Your task to perform on an android device: toggle wifi Image 0: 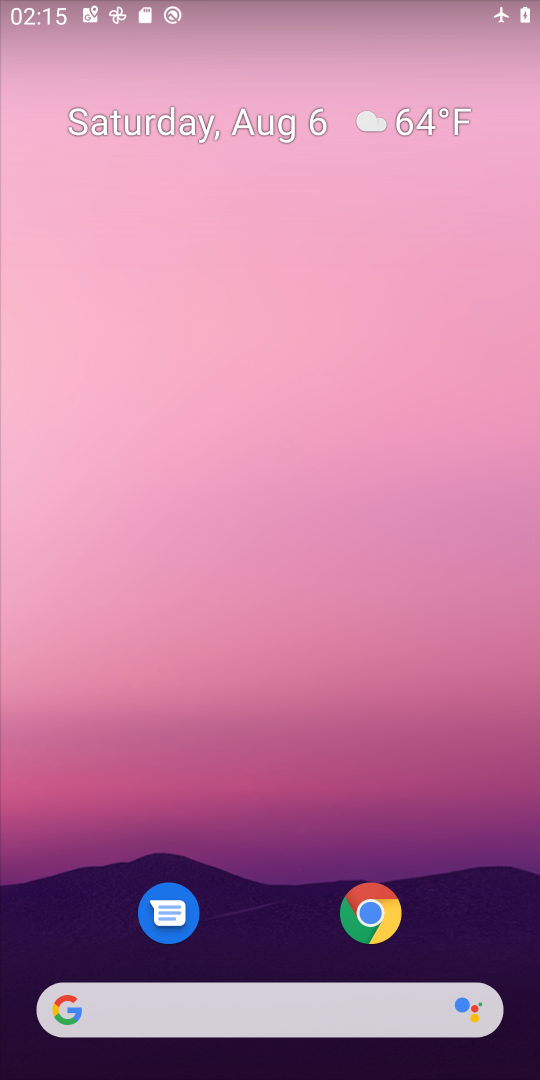
Step 0: drag from (476, 934) to (450, 224)
Your task to perform on an android device: toggle wifi Image 1: 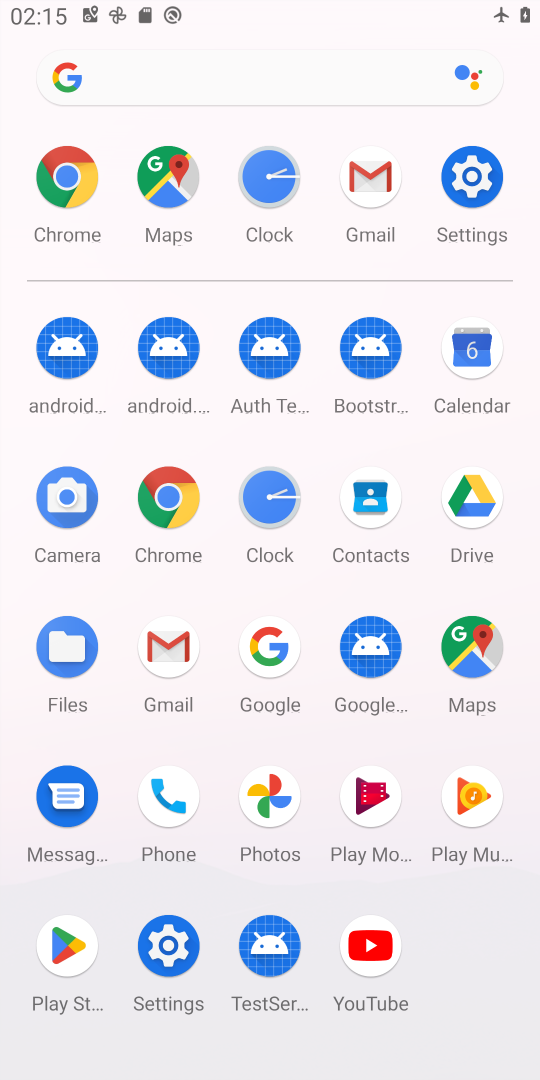
Step 1: click (472, 172)
Your task to perform on an android device: toggle wifi Image 2: 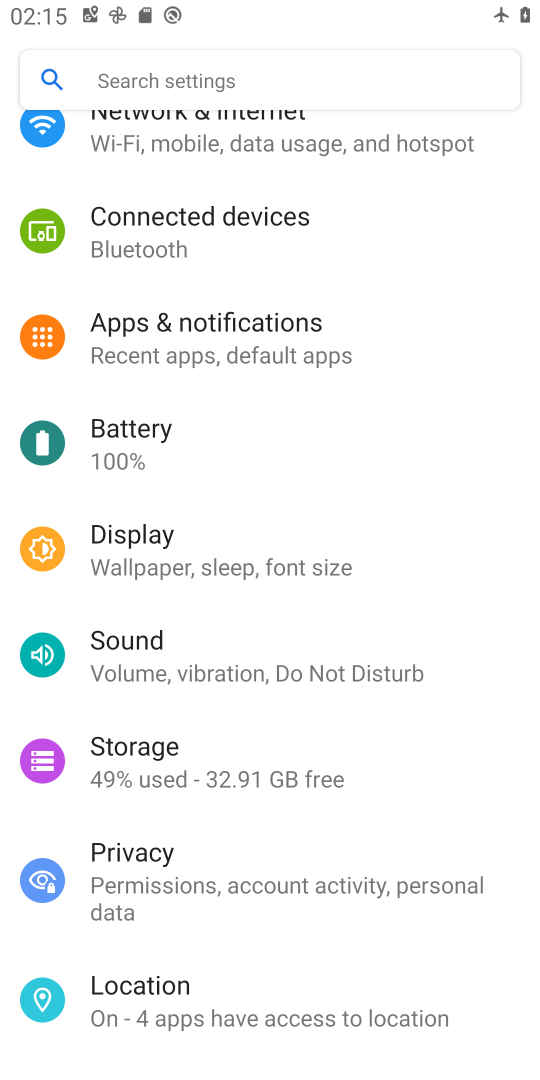
Step 2: drag from (460, 611) to (466, 383)
Your task to perform on an android device: toggle wifi Image 3: 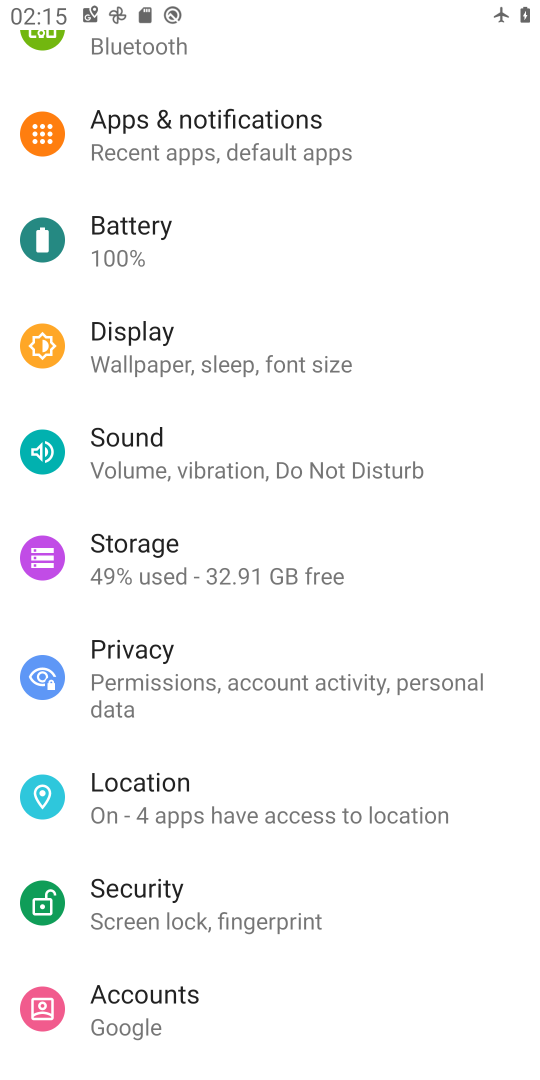
Step 3: drag from (456, 759) to (451, 418)
Your task to perform on an android device: toggle wifi Image 4: 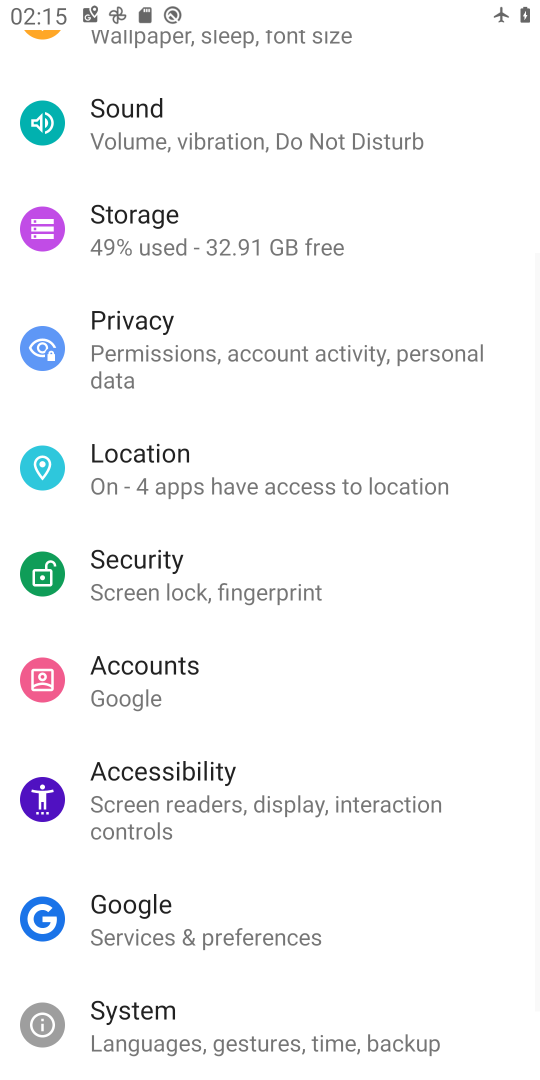
Step 4: drag from (470, 772) to (481, 481)
Your task to perform on an android device: toggle wifi Image 5: 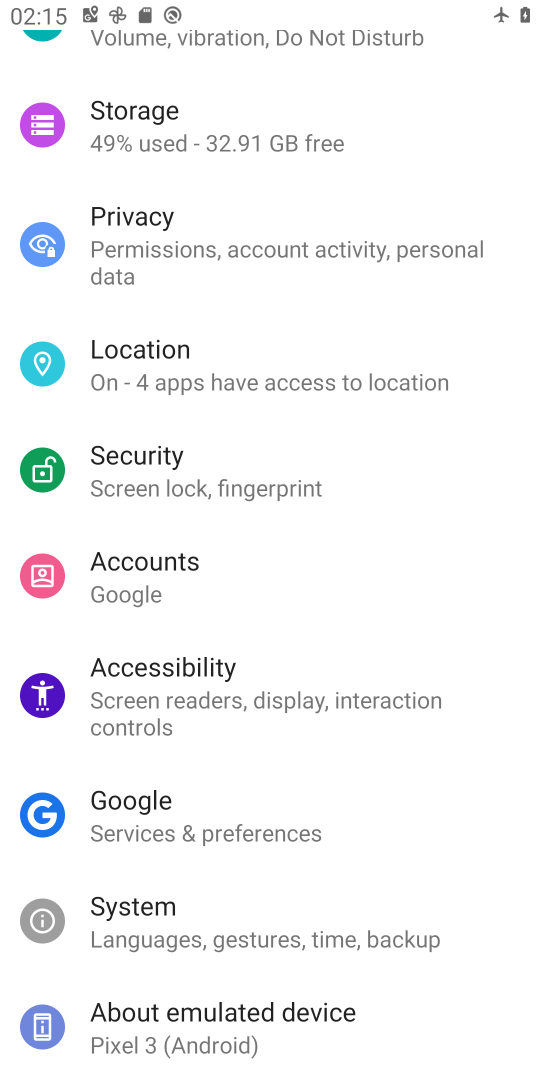
Step 5: drag from (474, 827) to (474, 513)
Your task to perform on an android device: toggle wifi Image 6: 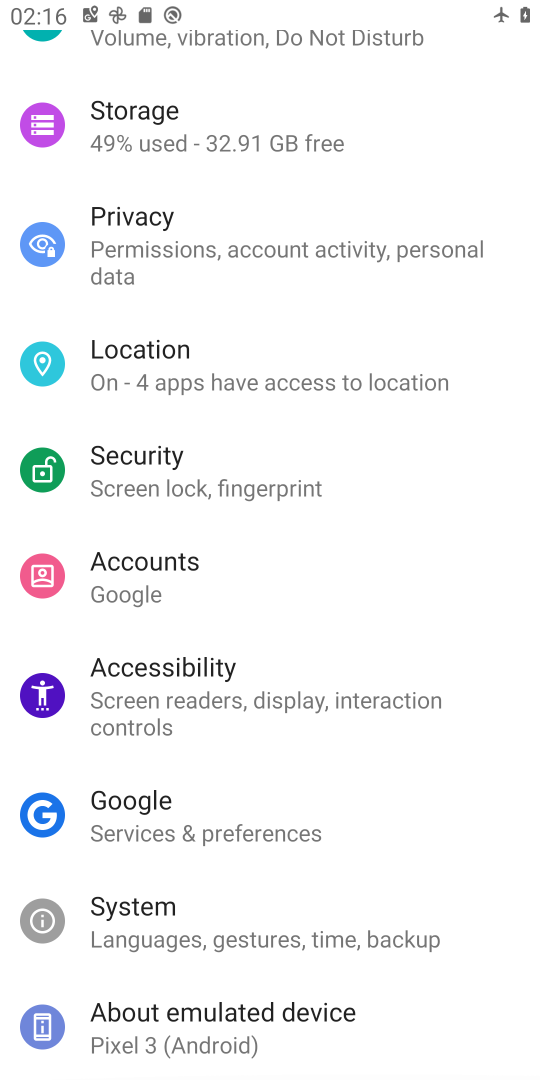
Step 6: drag from (489, 342) to (486, 593)
Your task to perform on an android device: toggle wifi Image 7: 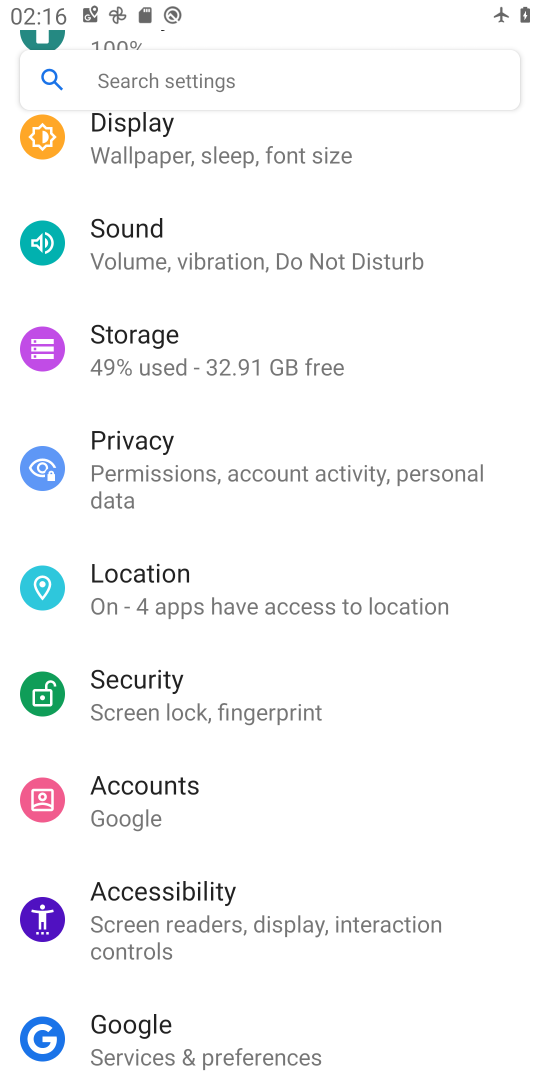
Step 7: drag from (472, 315) to (489, 582)
Your task to perform on an android device: toggle wifi Image 8: 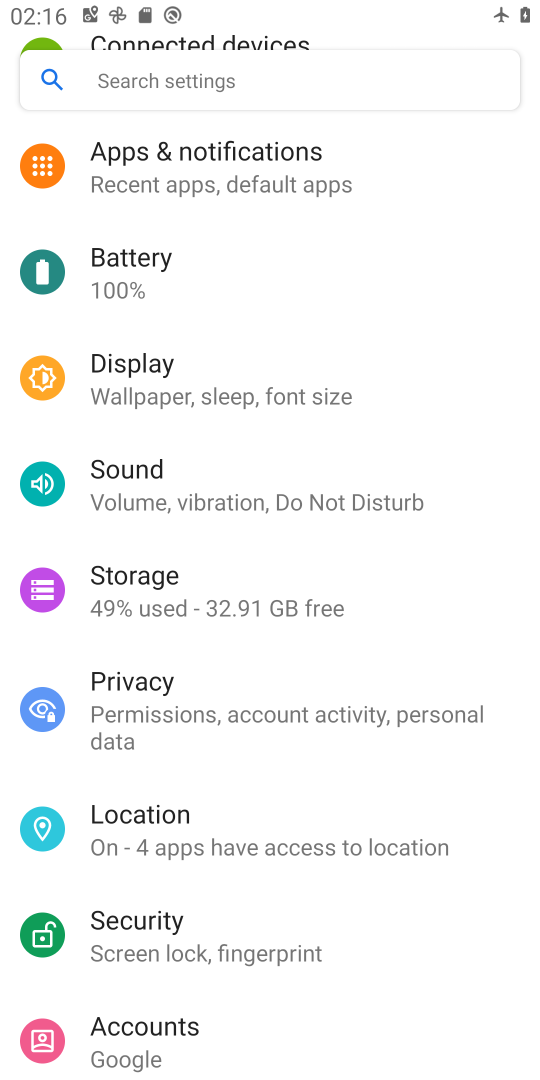
Step 8: drag from (469, 233) to (473, 488)
Your task to perform on an android device: toggle wifi Image 9: 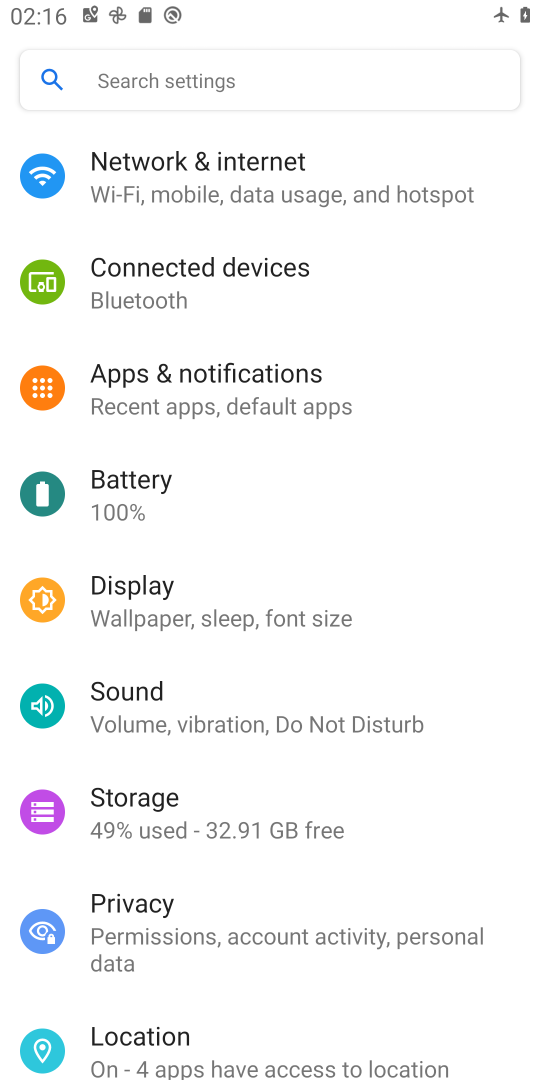
Step 9: drag from (448, 242) to (453, 563)
Your task to perform on an android device: toggle wifi Image 10: 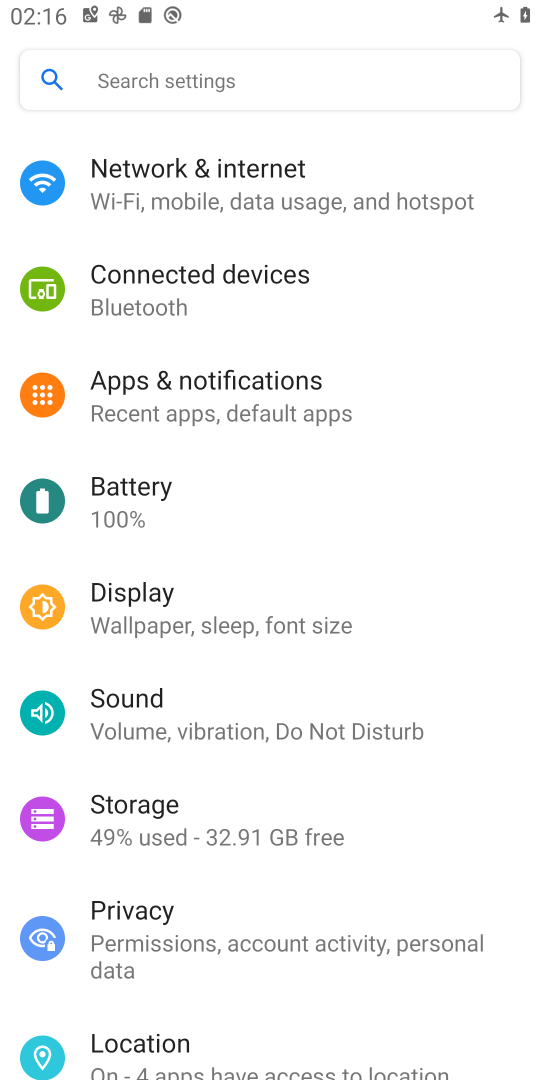
Step 10: click (372, 188)
Your task to perform on an android device: toggle wifi Image 11: 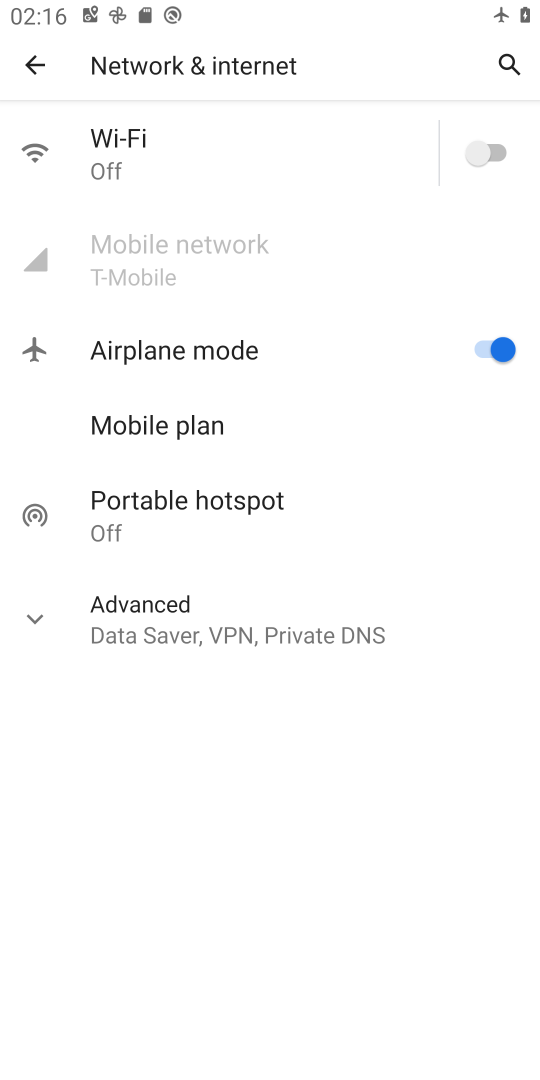
Step 11: click (477, 161)
Your task to perform on an android device: toggle wifi Image 12: 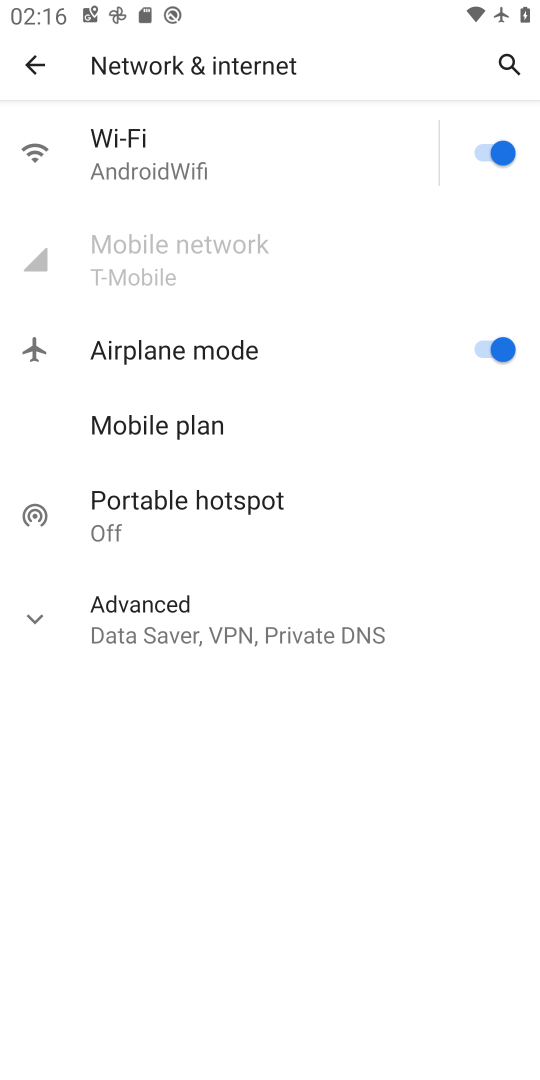
Step 12: task complete